Your task to perform on an android device: turn on javascript in the chrome app Image 0: 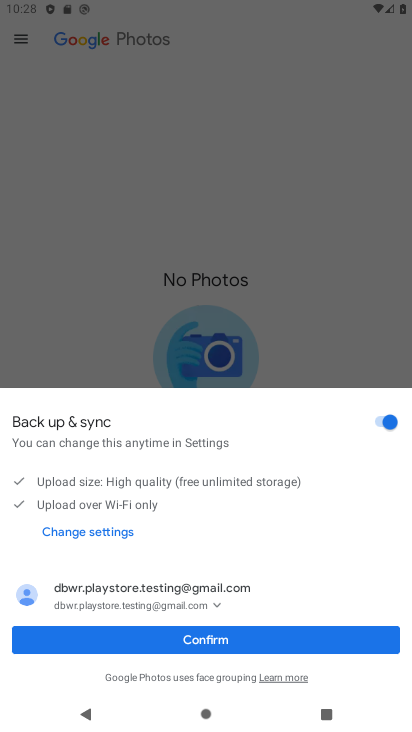
Step 0: press home button
Your task to perform on an android device: turn on javascript in the chrome app Image 1: 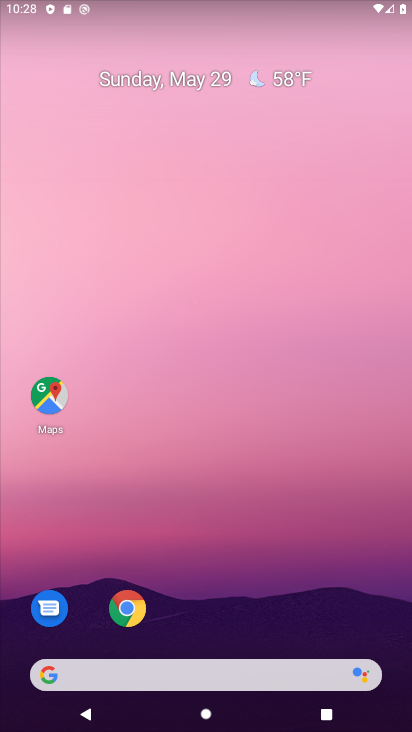
Step 1: click (127, 610)
Your task to perform on an android device: turn on javascript in the chrome app Image 2: 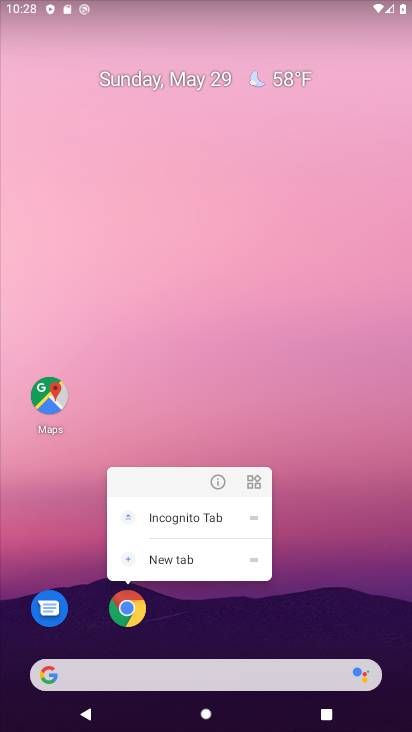
Step 2: click (127, 610)
Your task to perform on an android device: turn on javascript in the chrome app Image 3: 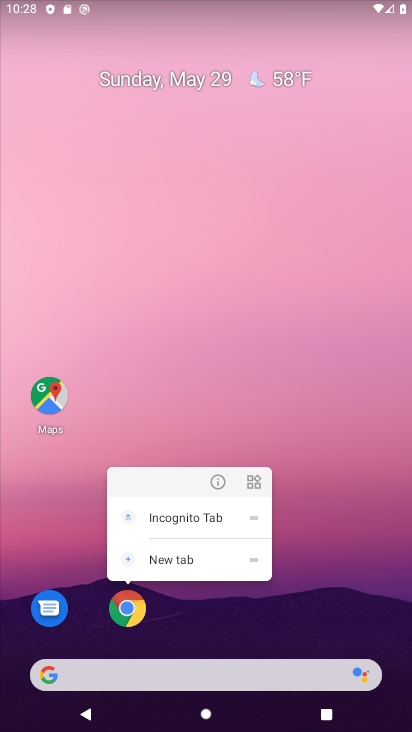
Step 3: click (132, 615)
Your task to perform on an android device: turn on javascript in the chrome app Image 4: 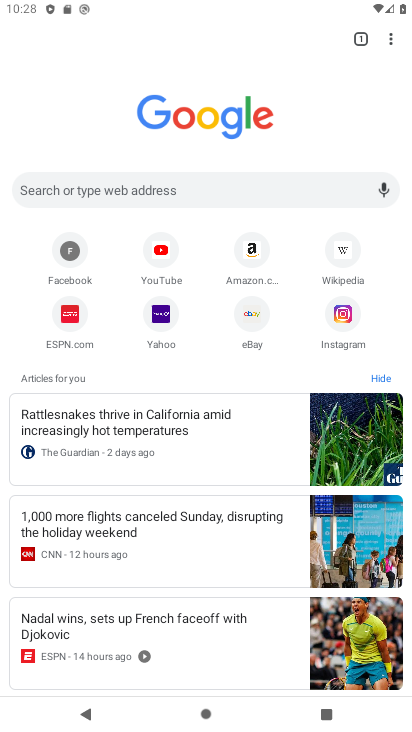
Step 4: click (392, 39)
Your task to perform on an android device: turn on javascript in the chrome app Image 5: 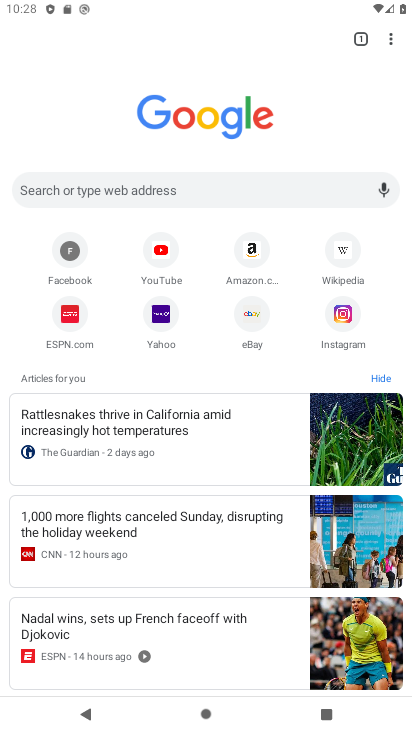
Step 5: click (384, 52)
Your task to perform on an android device: turn on javascript in the chrome app Image 6: 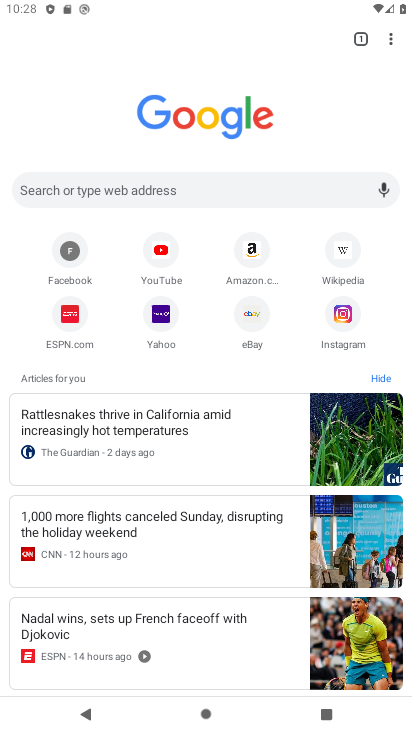
Step 6: click (392, 40)
Your task to perform on an android device: turn on javascript in the chrome app Image 7: 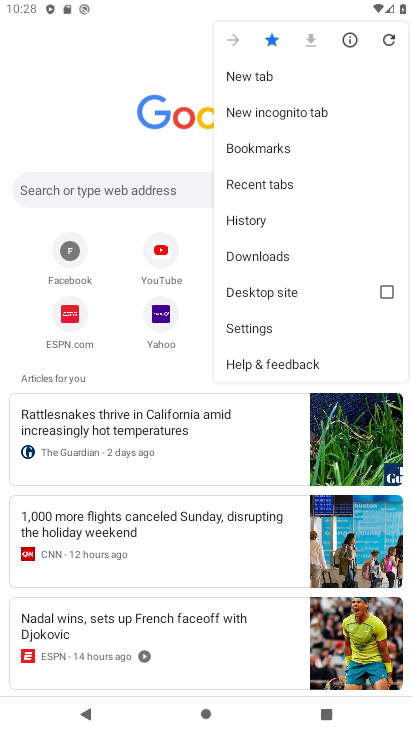
Step 7: click (255, 321)
Your task to perform on an android device: turn on javascript in the chrome app Image 8: 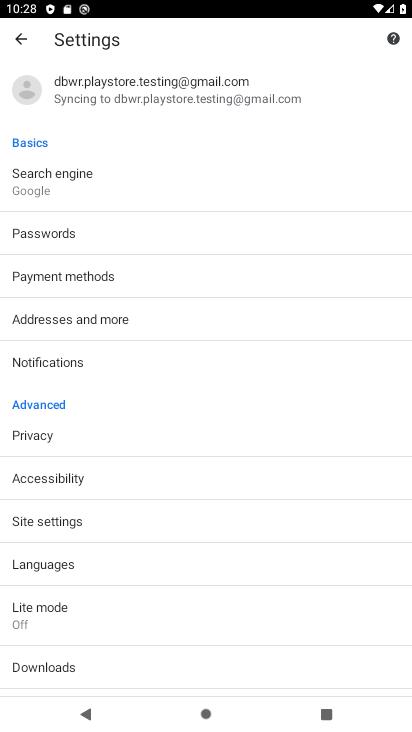
Step 8: click (51, 520)
Your task to perform on an android device: turn on javascript in the chrome app Image 9: 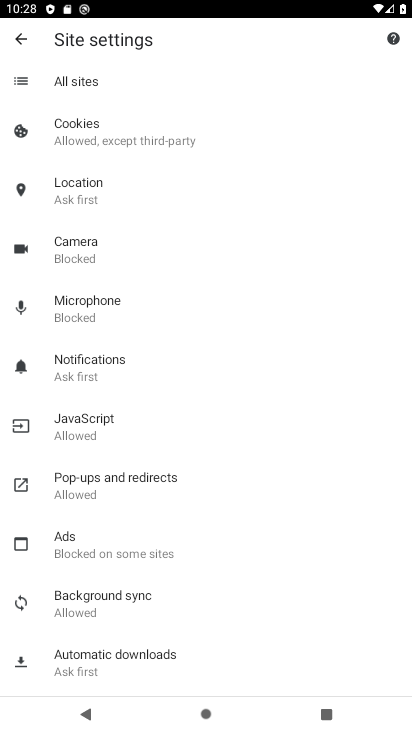
Step 9: click (91, 425)
Your task to perform on an android device: turn on javascript in the chrome app Image 10: 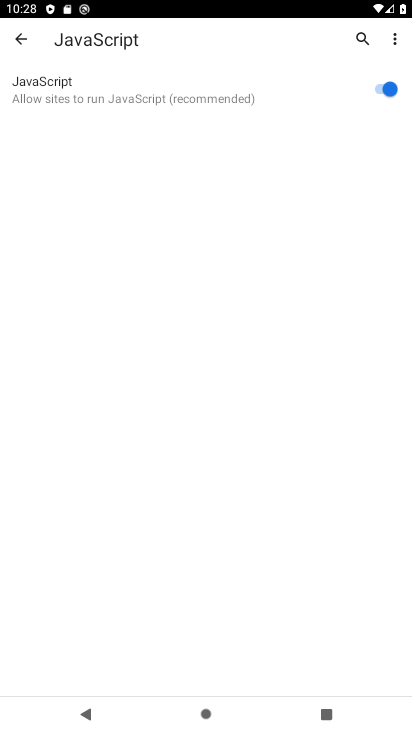
Step 10: task complete